Your task to perform on an android device: uninstall "Facebook Messenger" Image 0: 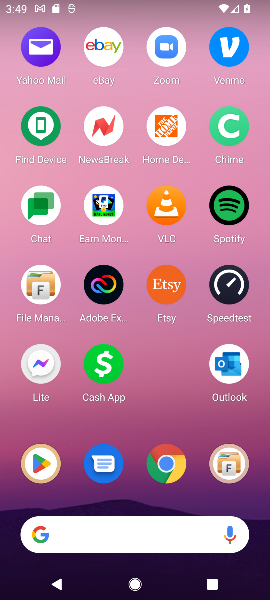
Step 0: press home button
Your task to perform on an android device: uninstall "Facebook Messenger" Image 1: 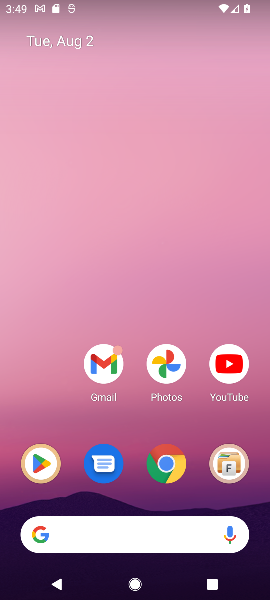
Step 1: click (30, 475)
Your task to perform on an android device: uninstall "Facebook Messenger" Image 2: 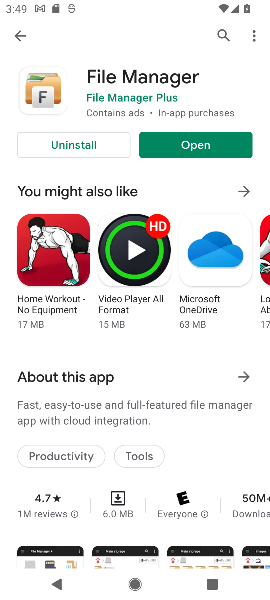
Step 2: click (225, 30)
Your task to perform on an android device: uninstall "Facebook Messenger" Image 3: 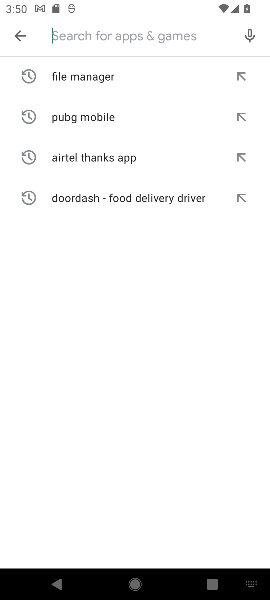
Step 3: type "Facebook Messenger"
Your task to perform on an android device: uninstall "Facebook Messenger" Image 4: 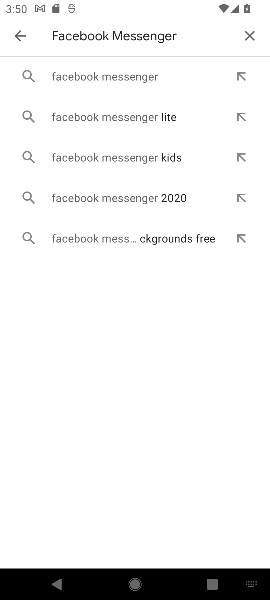
Step 4: click (121, 75)
Your task to perform on an android device: uninstall "Facebook Messenger" Image 5: 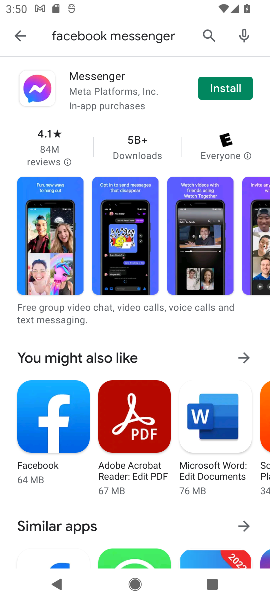
Step 5: task complete